Your task to perform on an android device: turn off notifications settings in the gmail app Image 0: 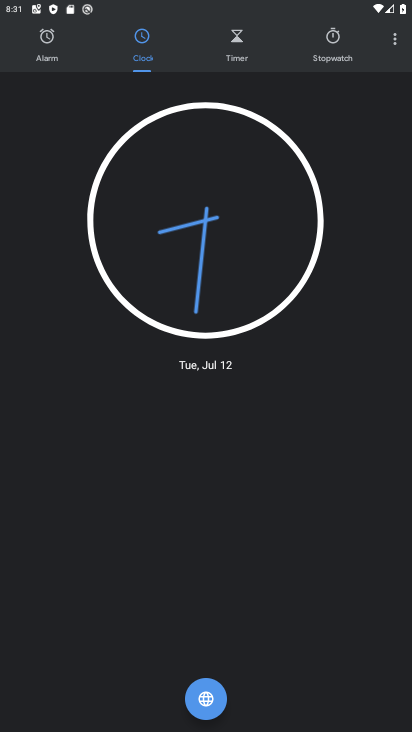
Step 0: drag from (193, 632) to (269, 157)
Your task to perform on an android device: turn off notifications settings in the gmail app Image 1: 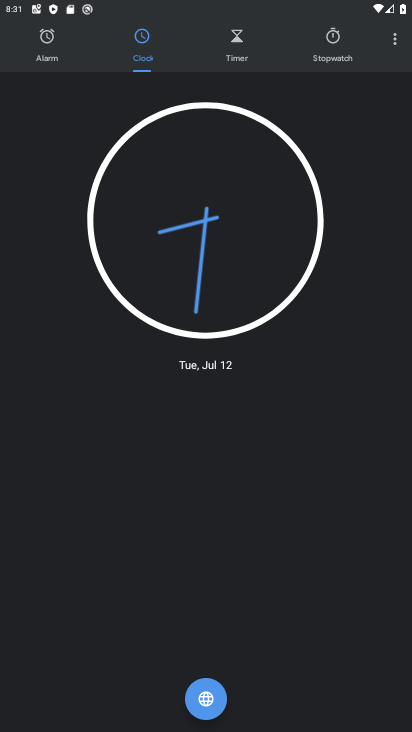
Step 1: press home button
Your task to perform on an android device: turn off notifications settings in the gmail app Image 2: 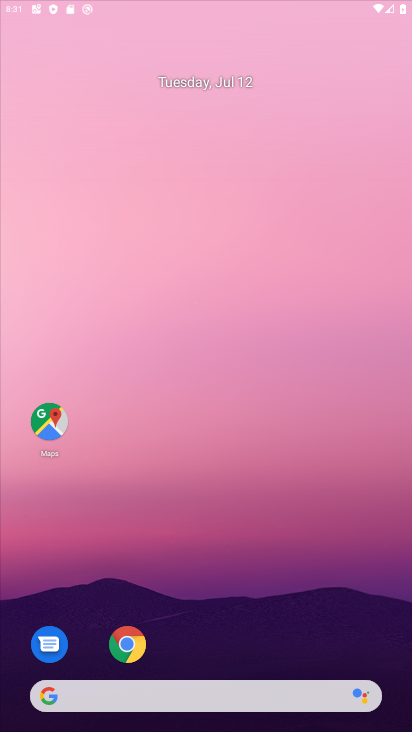
Step 2: drag from (157, 603) to (251, 98)
Your task to perform on an android device: turn off notifications settings in the gmail app Image 3: 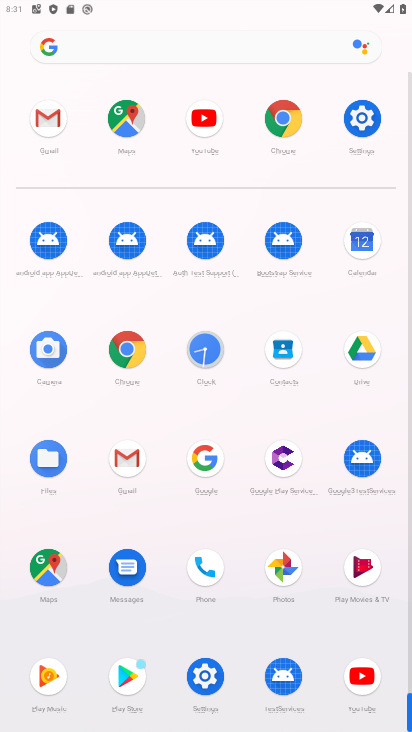
Step 3: click (127, 454)
Your task to perform on an android device: turn off notifications settings in the gmail app Image 4: 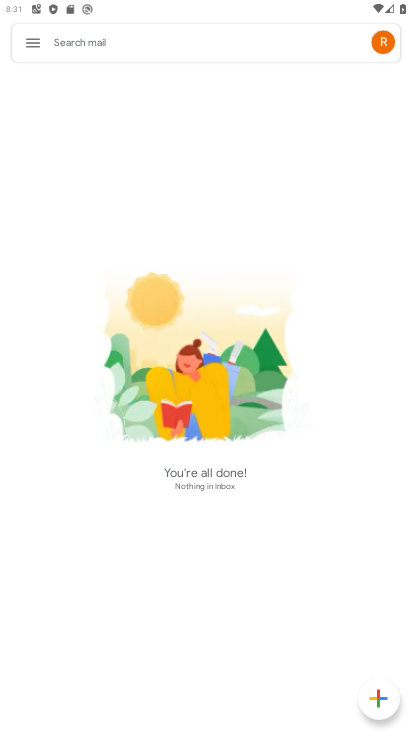
Step 4: drag from (214, 466) to (231, 227)
Your task to perform on an android device: turn off notifications settings in the gmail app Image 5: 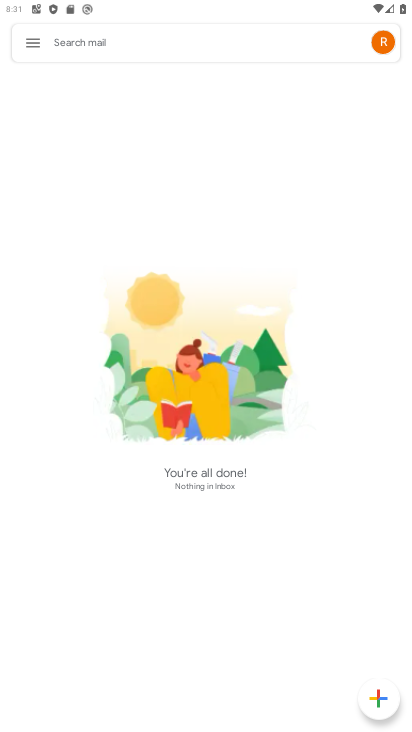
Step 5: drag from (184, 537) to (243, 396)
Your task to perform on an android device: turn off notifications settings in the gmail app Image 6: 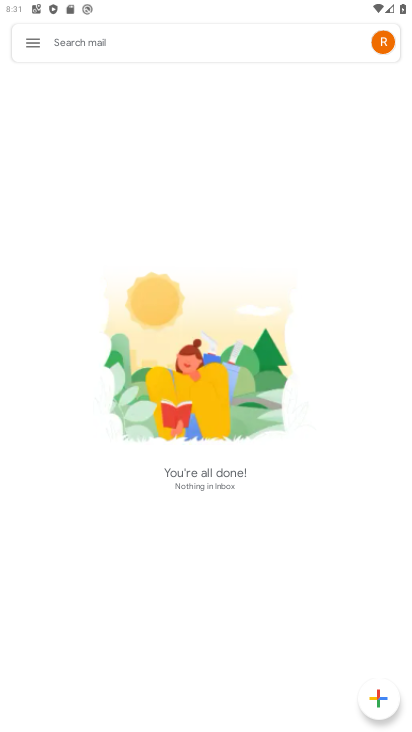
Step 6: drag from (194, 550) to (255, 296)
Your task to perform on an android device: turn off notifications settings in the gmail app Image 7: 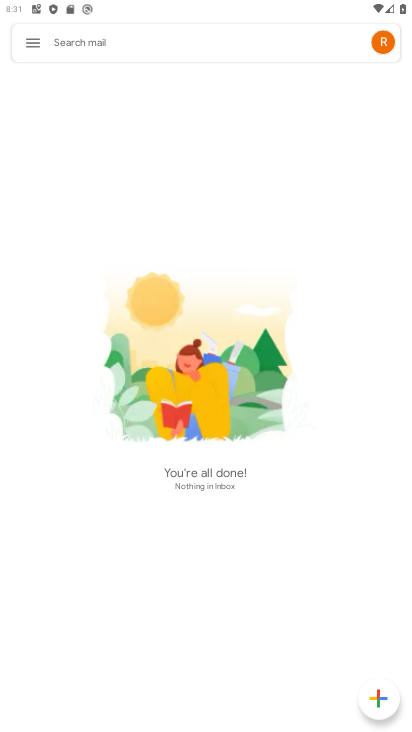
Step 7: drag from (178, 620) to (219, 346)
Your task to perform on an android device: turn off notifications settings in the gmail app Image 8: 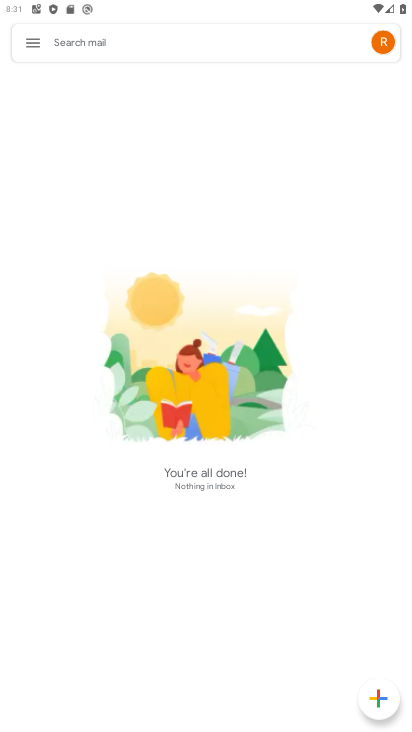
Step 8: click (30, 36)
Your task to perform on an android device: turn off notifications settings in the gmail app Image 9: 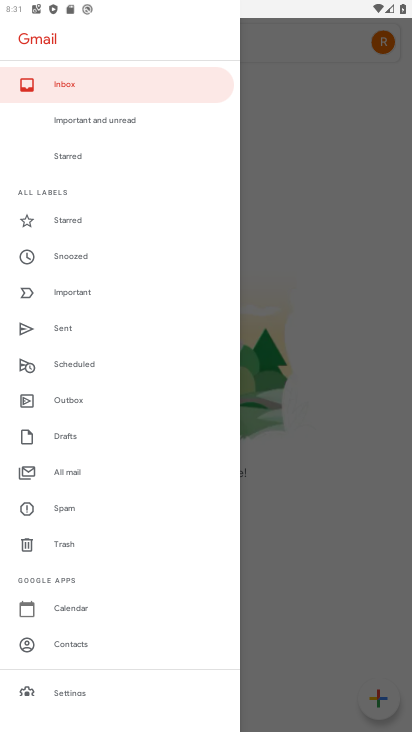
Step 9: drag from (133, 625) to (194, 69)
Your task to perform on an android device: turn off notifications settings in the gmail app Image 10: 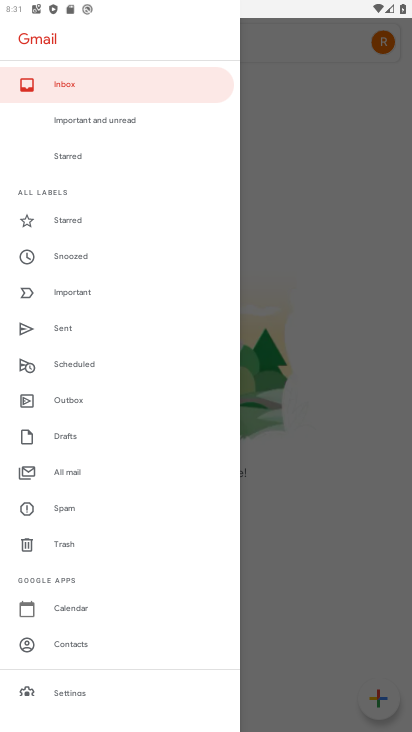
Step 10: click (60, 693)
Your task to perform on an android device: turn off notifications settings in the gmail app Image 11: 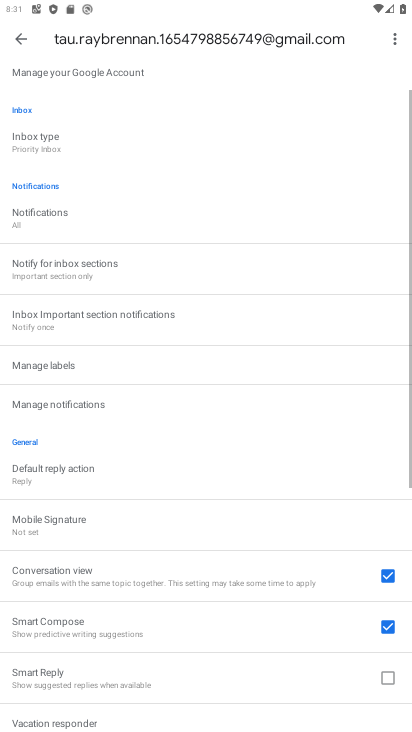
Step 11: drag from (139, 611) to (224, 122)
Your task to perform on an android device: turn off notifications settings in the gmail app Image 12: 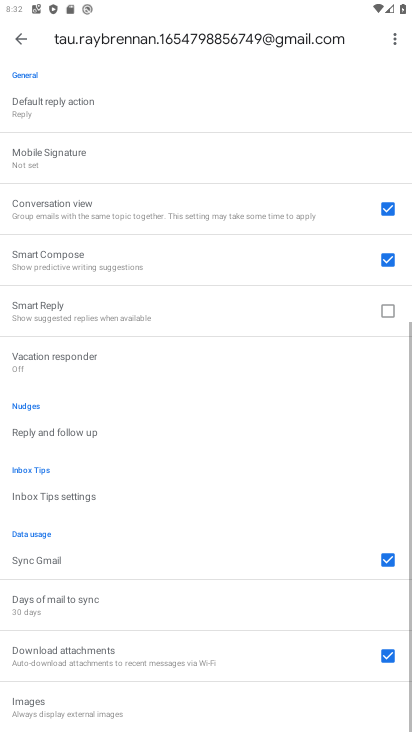
Step 12: drag from (174, 343) to (241, 726)
Your task to perform on an android device: turn off notifications settings in the gmail app Image 13: 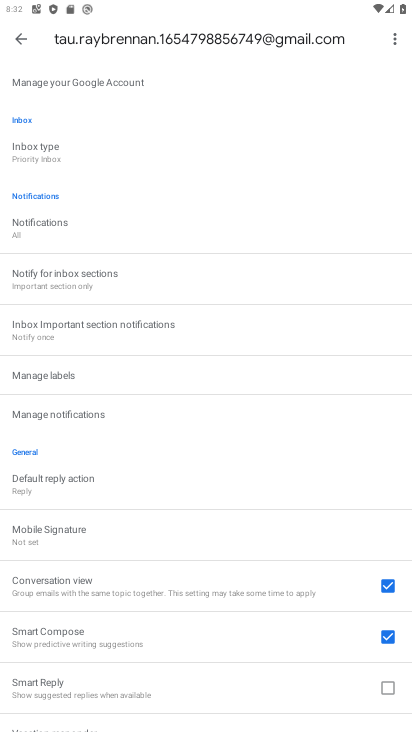
Step 13: click (65, 415)
Your task to perform on an android device: turn off notifications settings in the gmail app Image 14: 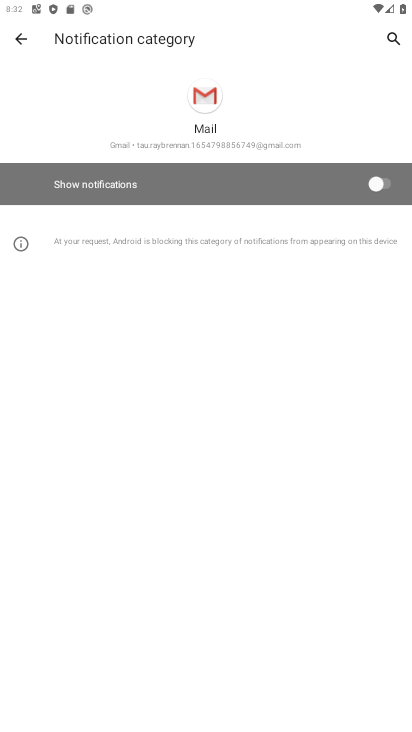
Step 14: task complete